Your task to perform on an android device: Open the calendar and show me this week's events Image 0: 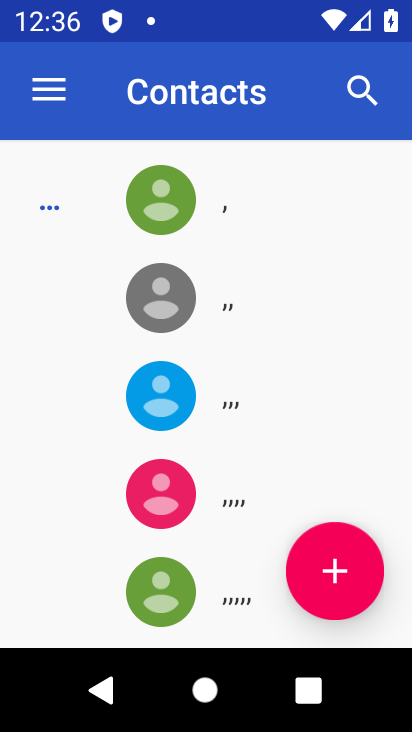
Step 0: press home button
Your task to perform on an android device: Open the calendar and show me this week's events Image 1: 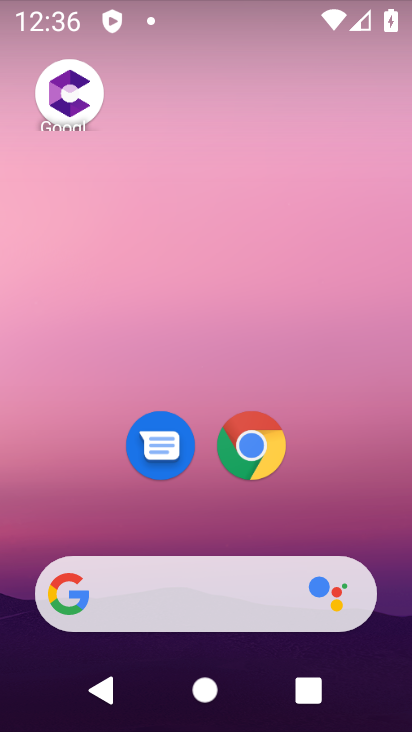
Step 1: drag from (402, 614) to (338, 94)
Your task to perform on an android device: Open the calendar and show me this week's events Image 2: 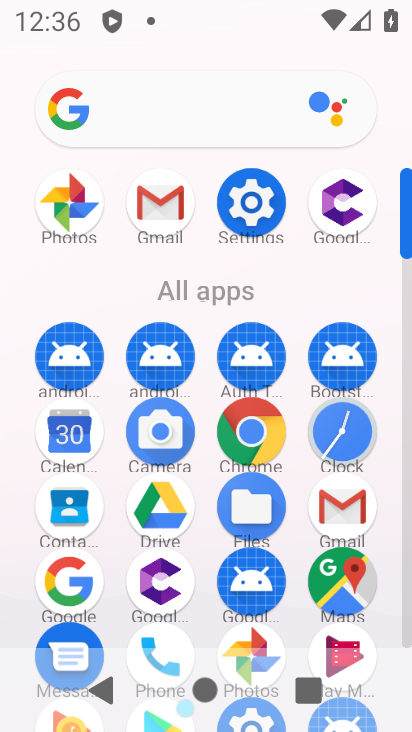
Step 2: click (73, 433)
Your task to perform on an android device: Open the calendar and show me this week's events Image 3: 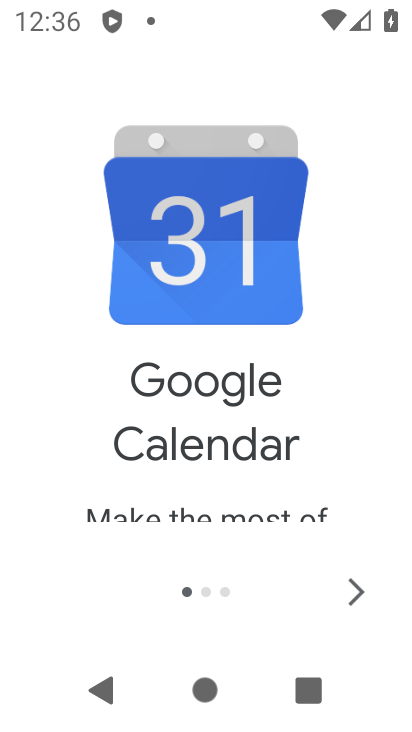
Step 3: click (357, 592)
Your task to perform on an android device: Open the calendar and show me this week's events Image 4: 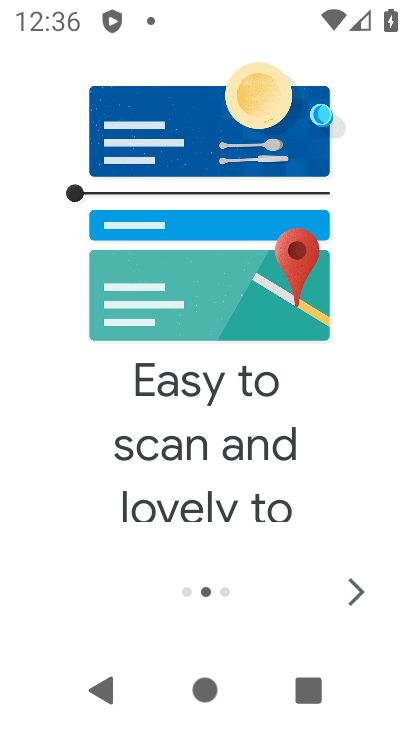
Step 4: click (357, 592)
Your task to perform on an android device: Open the calendar and show me this week's events Image 5: 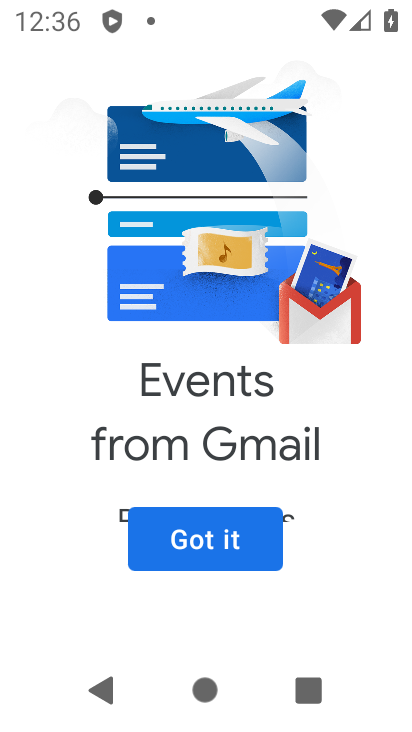
Step 5: click (190, 537)
Your task to perform on an android device: Open the calendar and show me this week's events Image 6: 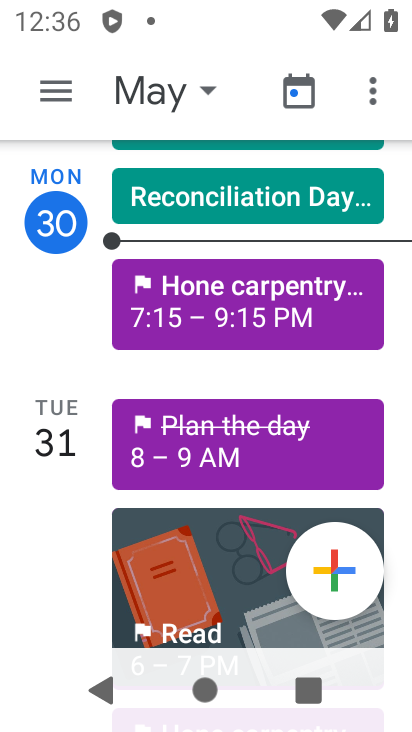
Step 6: click (62, 84)
Your task to perform on an android device: Open the calendar and show me this week's events Image 7: 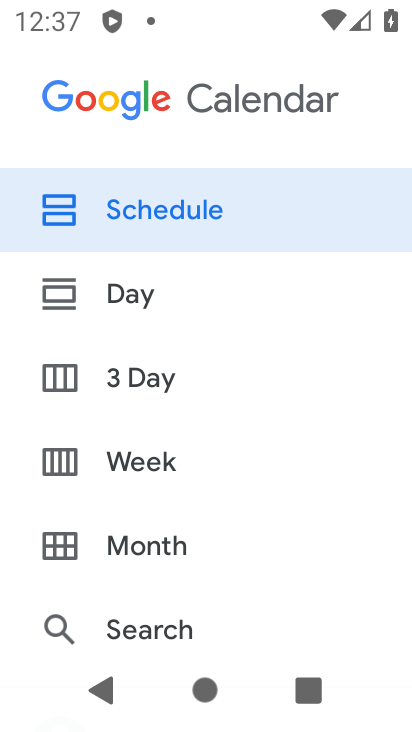
Step 7: click (160, 459)
Your task to perform on an android device: Open the calendar and show me this week's events Image 8: 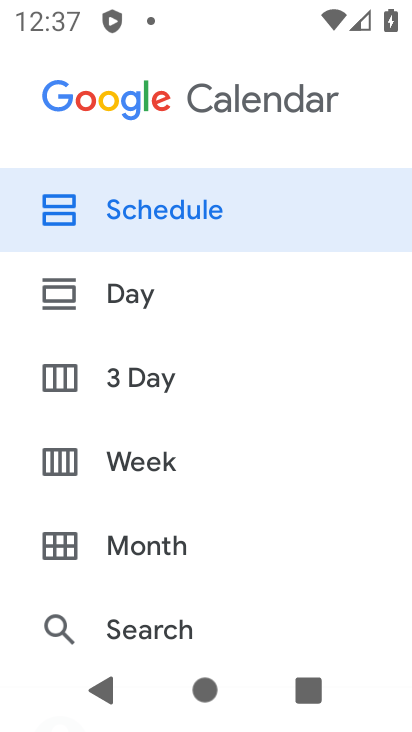
Step 8: click (128, 460)
Your task to perform on an android device: Open the calendar and show me this week's events Image 9: 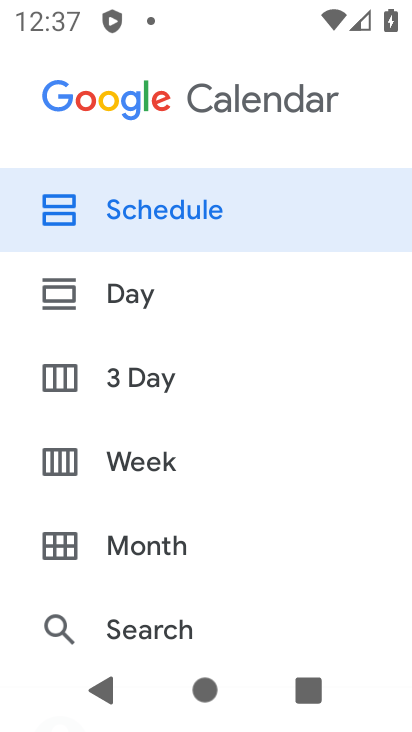
Step 9: click (128, 460)
Your task to perform on an android device: Open the calendar and show me this week's events Image 10: 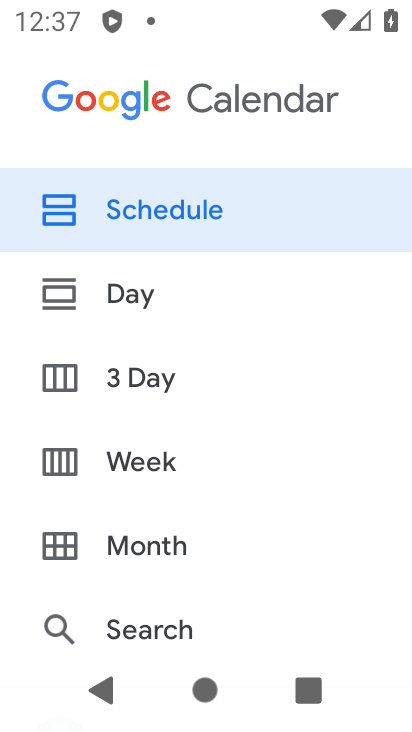
Step 10: click (128, 460)
Your task to perform on an android device: Open the calendar and show me this week's events Image 11: 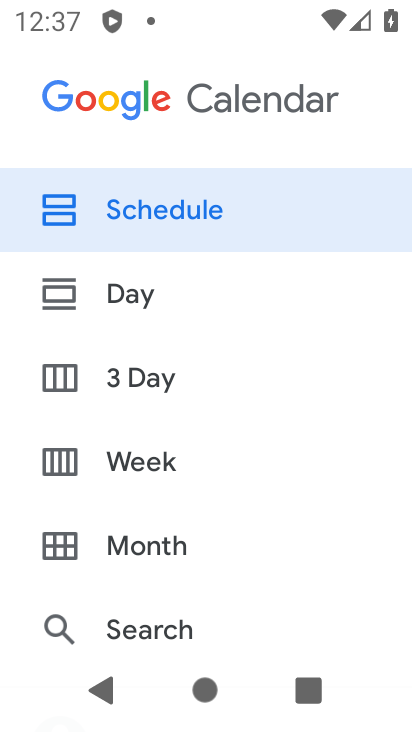
Step 11: click (165, 455)
Your task to perform on an android device: Open the calendar and show me this week's events Image 12: 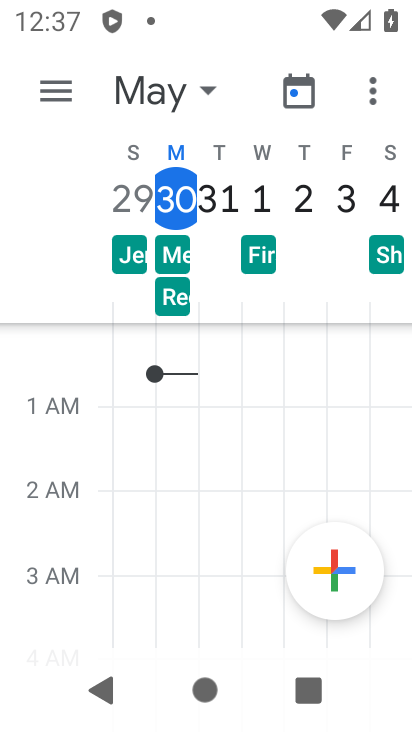
Step 12: task complete